Your task to perform on an android device: Search for vegetarian restaurants on Maps Image 0: 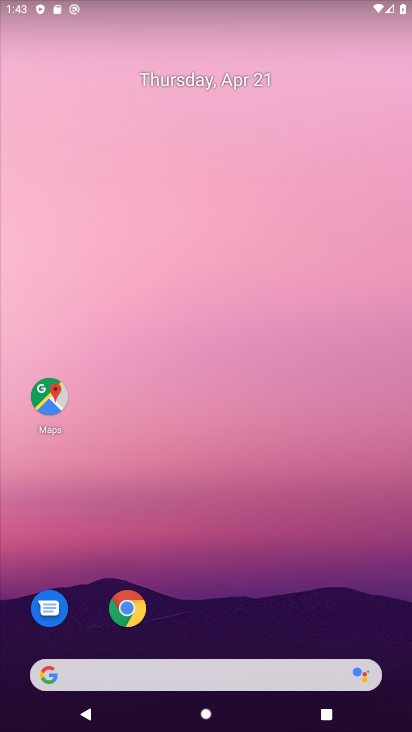
Step 0: drag from (258, 566) to (300, 109)
Your task to perform on an android device: Search for vegetarian restaurants on Maps Image 1: 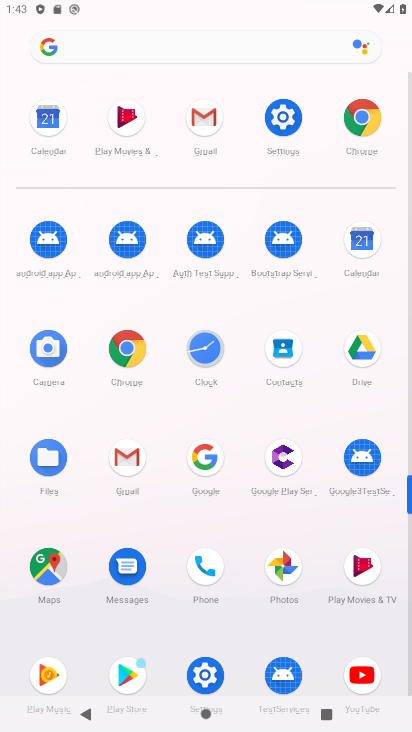
Step 1: click (47, 559)
Your task to perform on an android device: Search for vegetarian restaurants on Maps Image 2: 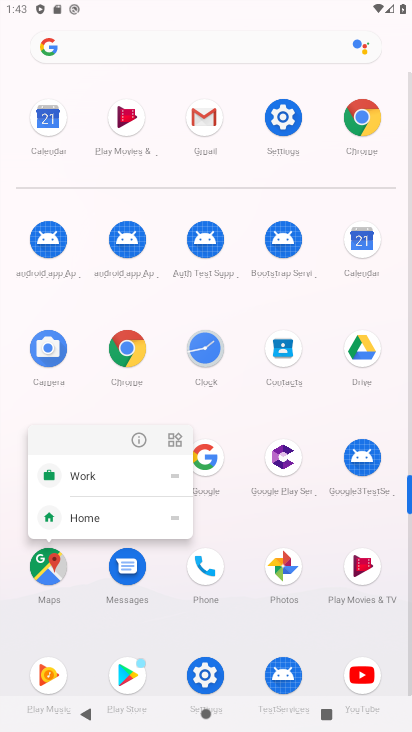
Step 2: click (47, 559)
Your task to perform on an android device: Search for vegetarian restaurants on Maps Image 3: 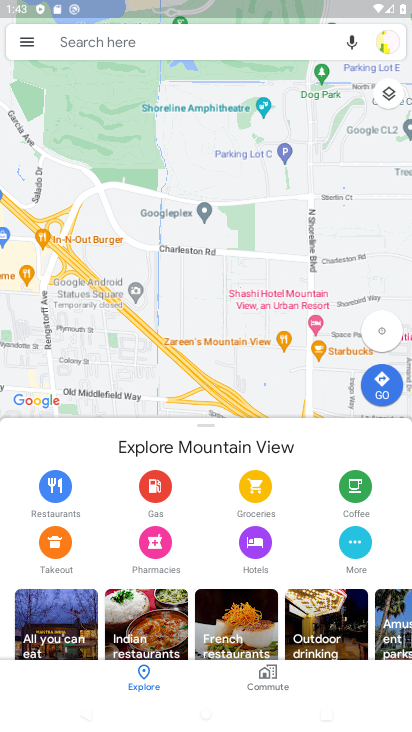
Step 3: click (190, 29)
Your task to perform on an android device: Search for vegetarian restaurants on Maps Image 4: 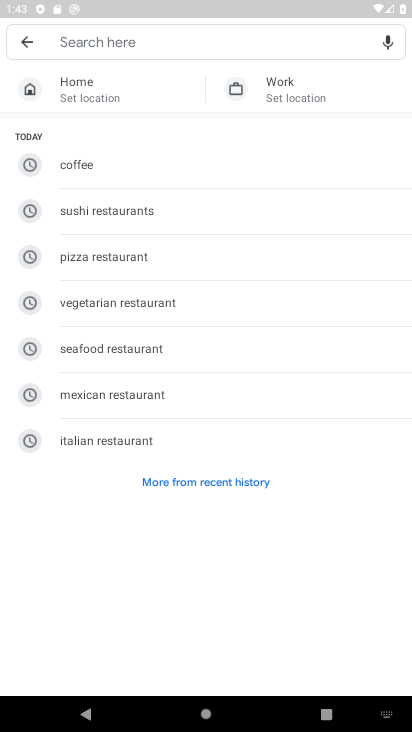
Step 4: click (58, 303)
Your task to perform on an android device: Search for vegetarian restaurants on Maps Image 5: 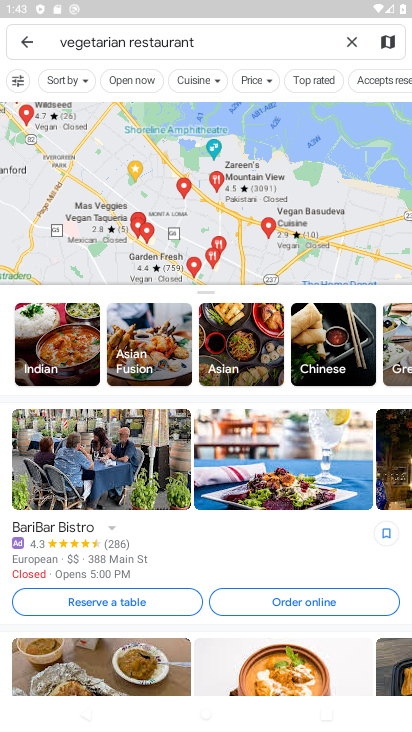
Step 5: task complete